Your task to perform on an android device: What's the weather? Image 0: 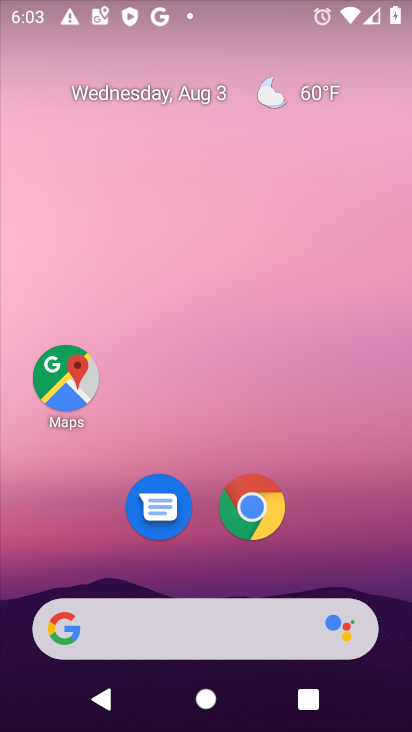
Step 0: click (319, 98)
Your task to perform on an android device: What's the weather? Image 1: 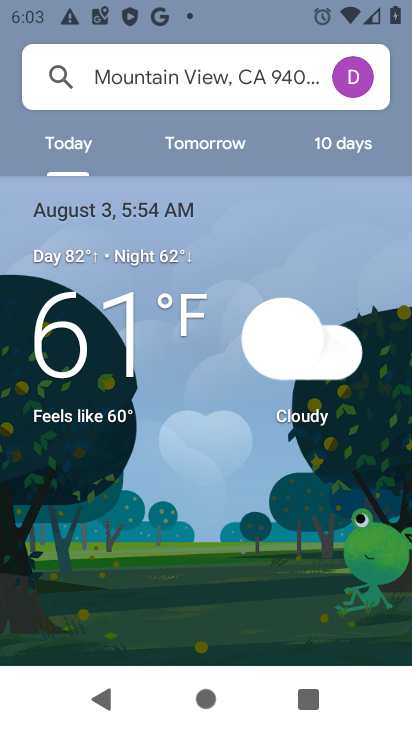
Step 1: task complete